Your task to perform on an android device: find which apps use the phone's location Image 0: 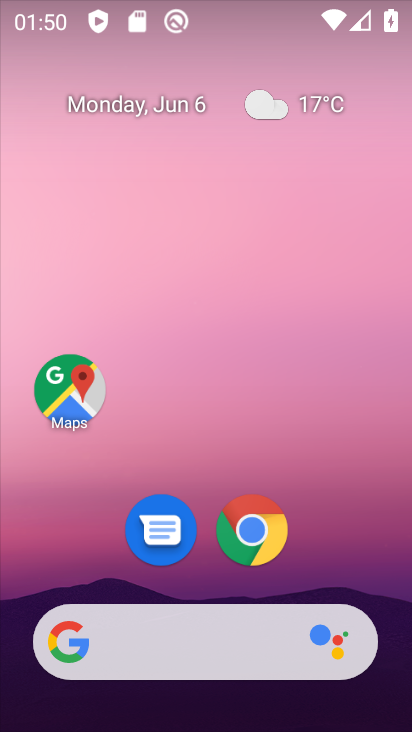
Step 0: drag from (339, 590) to (342, 257)
Your task to perform on an android device: find which apps use the phone's location Image 1: 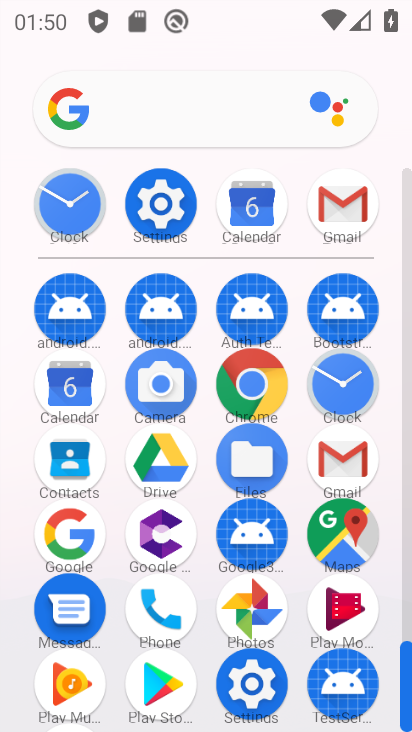
Step 1: click (156, 185)
Your task to perform on an android device: find which apps use the phone's location Image 2: 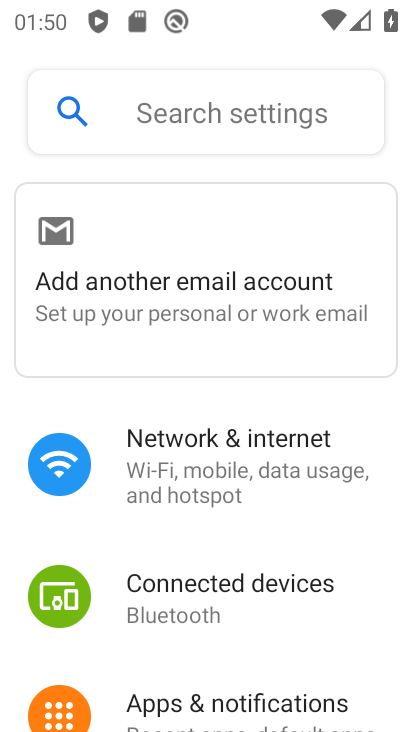
Step 2: drag from (246, 634) to (276, 323)
Your task to perform on an android device: find which apps use the phone's location Image 3: 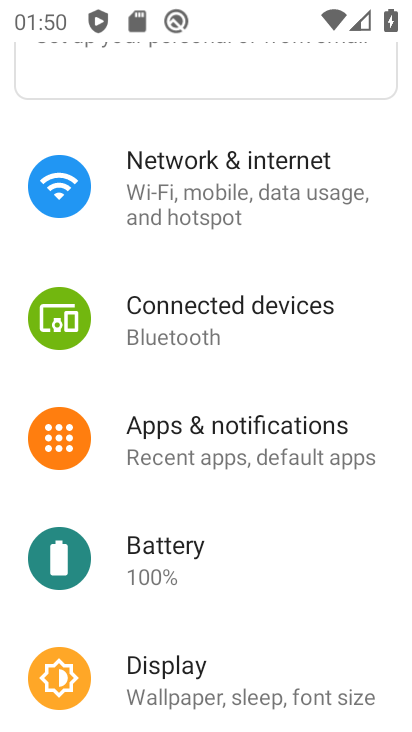
Step 3: drag from (227, 601) to (267, 284)
Your task to perform on an android device: find which apps use the phone's location Image 4: 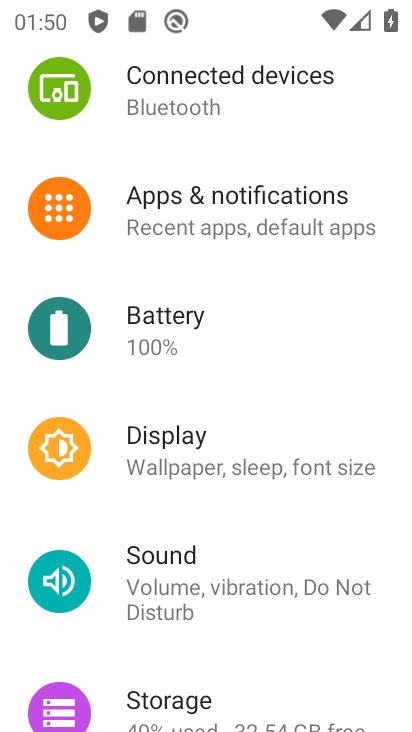
Step 4: drag from (227, 590) to (244, 210)
Your task to perform on an android device: find which apps use the phone's location Image 5: 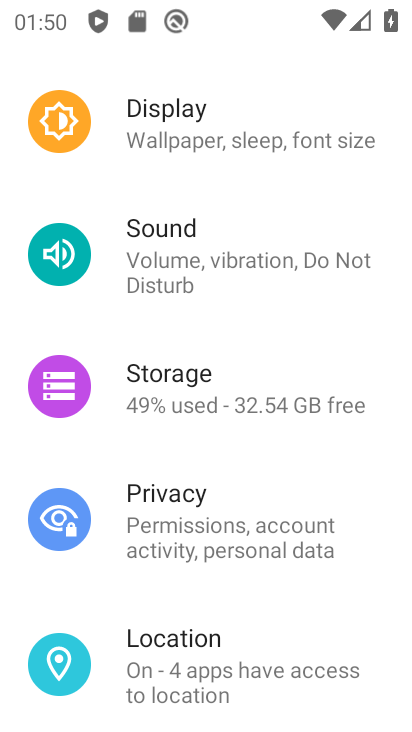
Step 5: click (199, 655)
Your task to perform on an android device: find which apps use the phone's location Image 6: 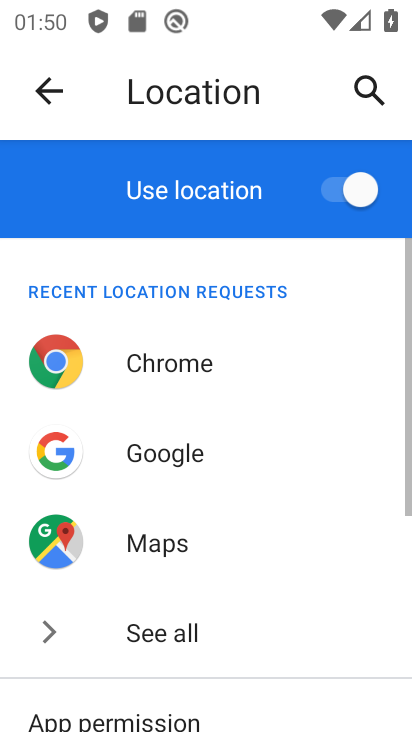
Step 6: task complete